Your task to perform on an android device: open app "Airtel Thanks" Image 0: 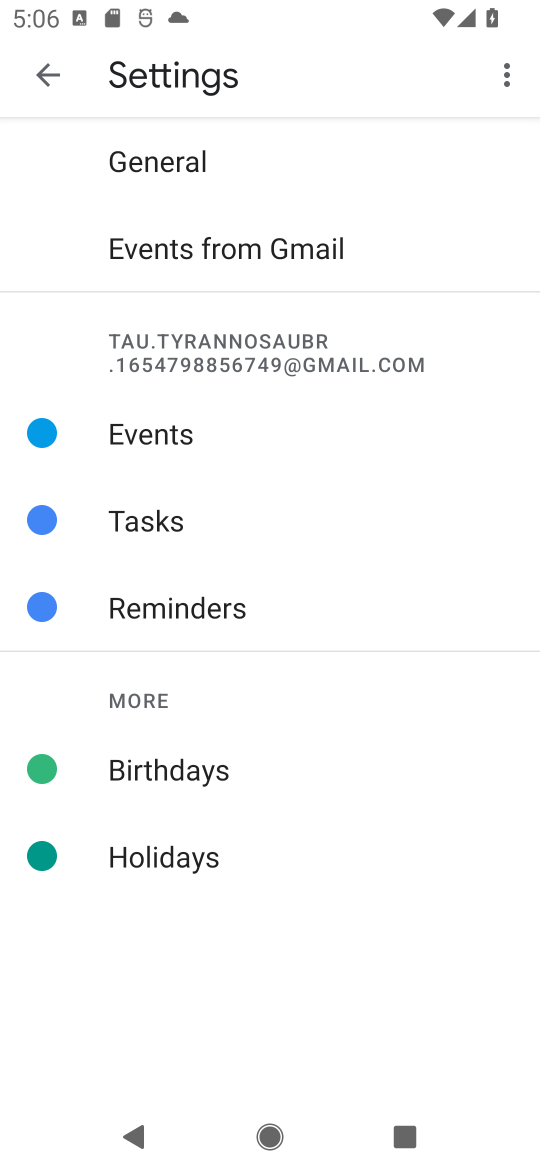
Step 0: press home button
Your task to perform on an android device: open app "Airtel Thanks" Image 1: 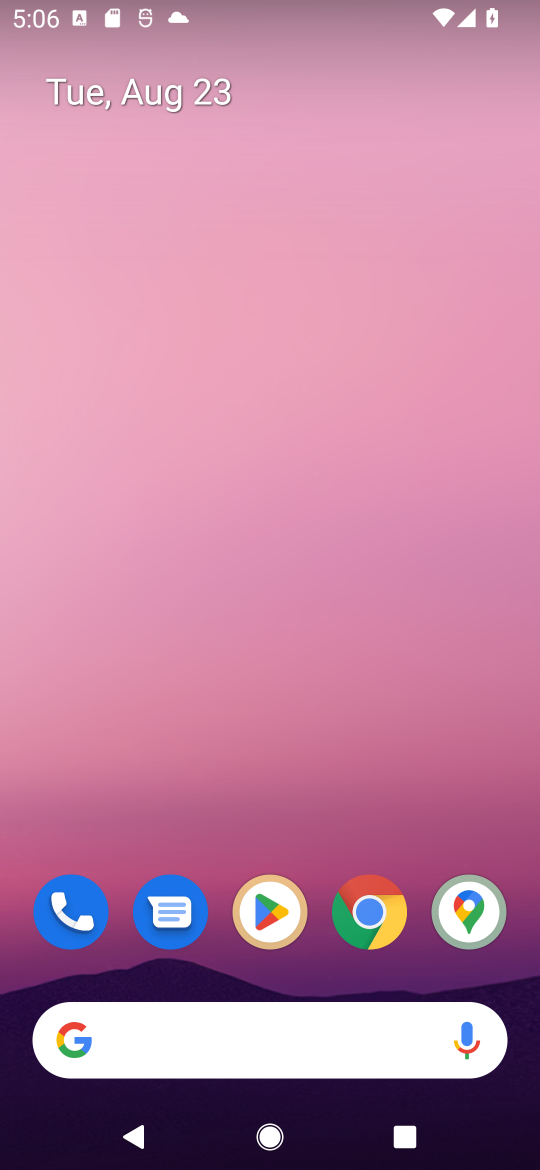
Step 1: drag from (202, 1018) to (173, 146)
Your task to perform on an android device: open app "Airtel Thanks" Image 2: 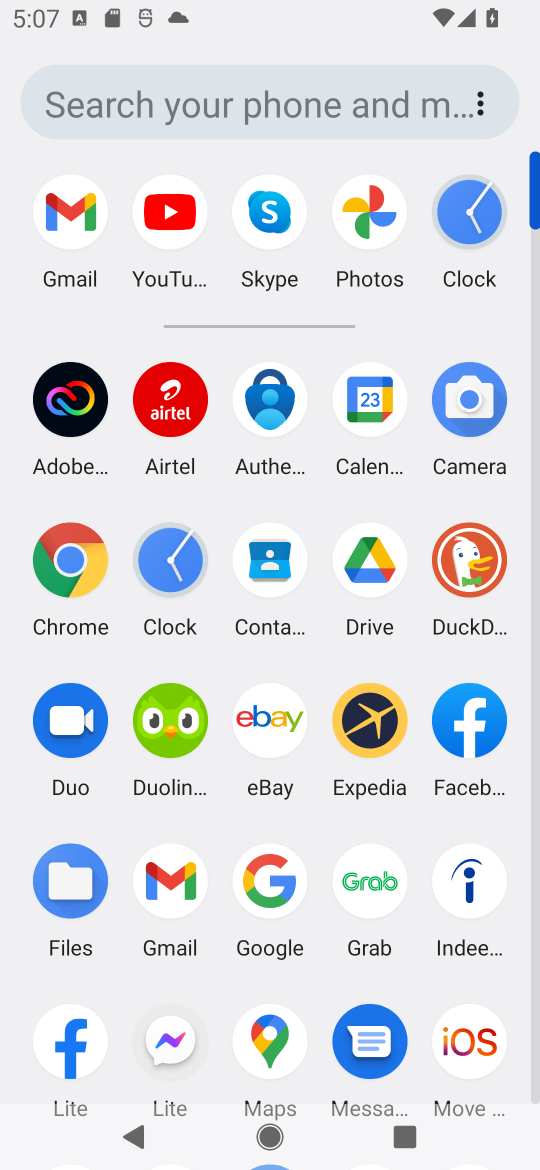
Step 2: drag from (266, 986) to (174, 386)
Your task to perform on an android device: open app "Airtel Thanks" Image 3: 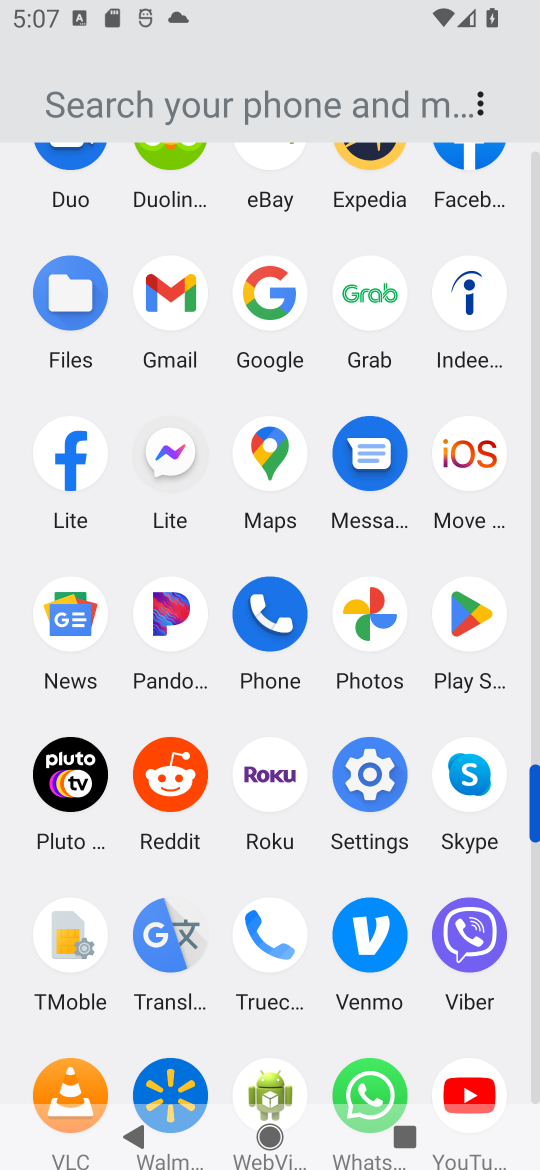
Step 3: click (475, 617)
Your task to perform on an android device: open app "Airtel Thanks" Image 4: 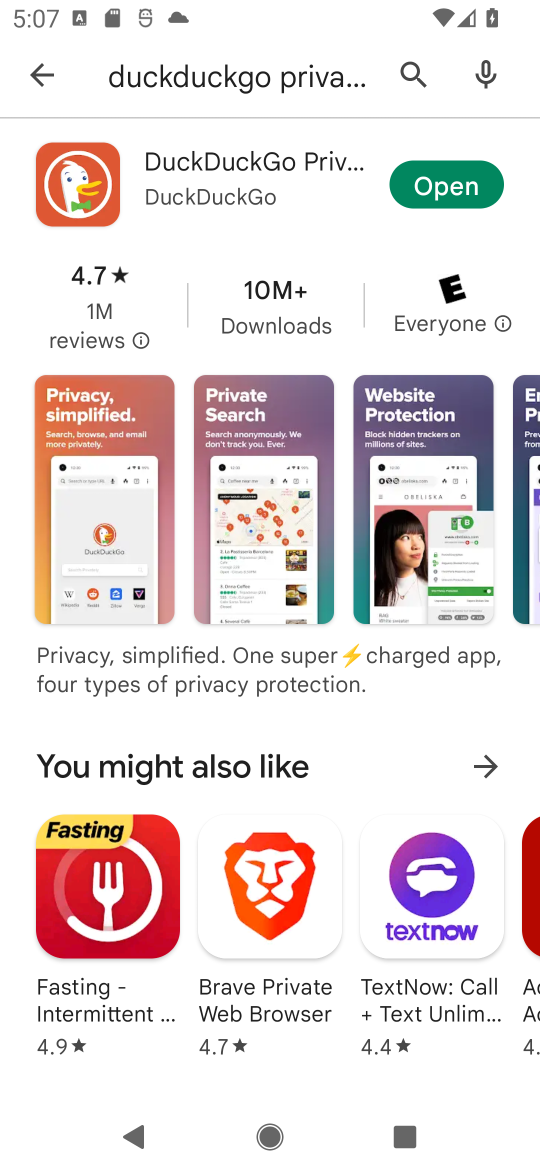
Step 4: press back button
Your task to perform on an android device: open app "Airtel Thanks" Image 5: 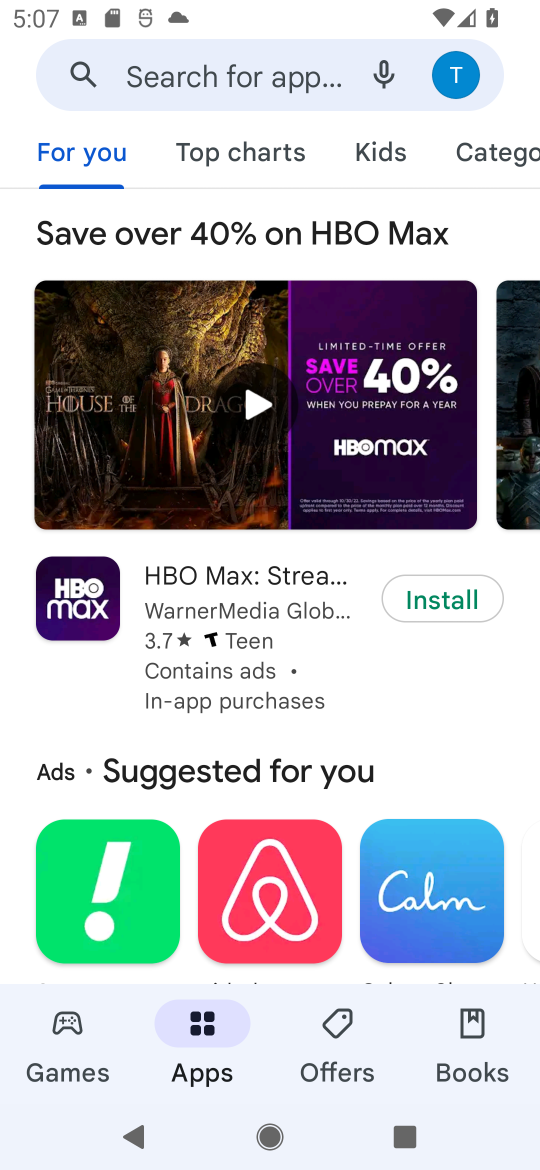
Step 5: click (259, 85)
Your task to perform on an android device: open app "Airtel Thanks" Image 6: 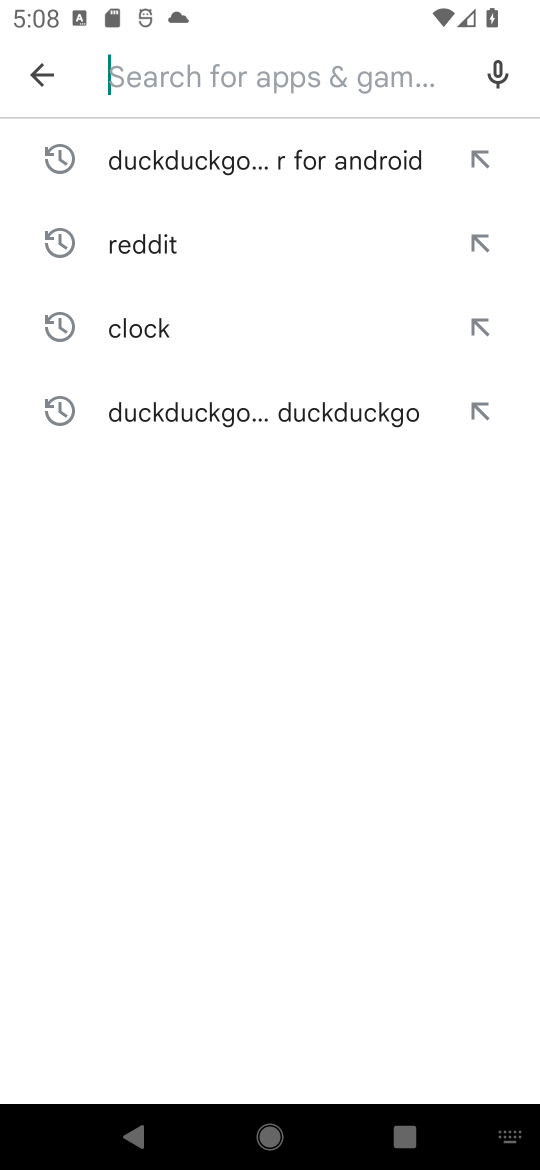
Step 6: type "Airtel Thanks"
Your task to perform on an android device: open app "Airtel Thanks" Image 7: 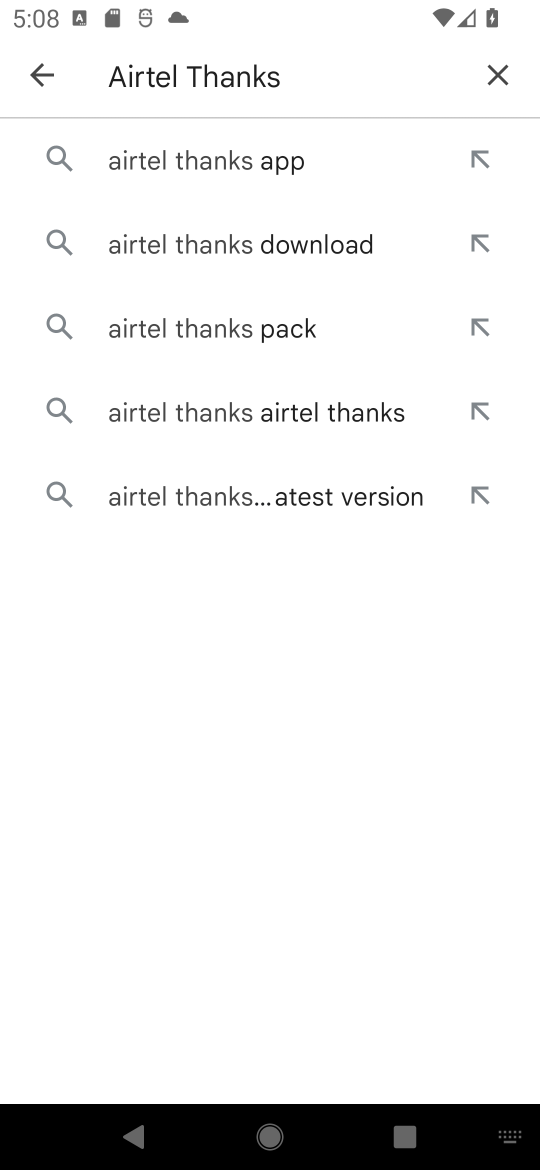
Step 7: click (218, 172)
Your task to perform on an android device: open app "Airtel Thanks" Image 8: 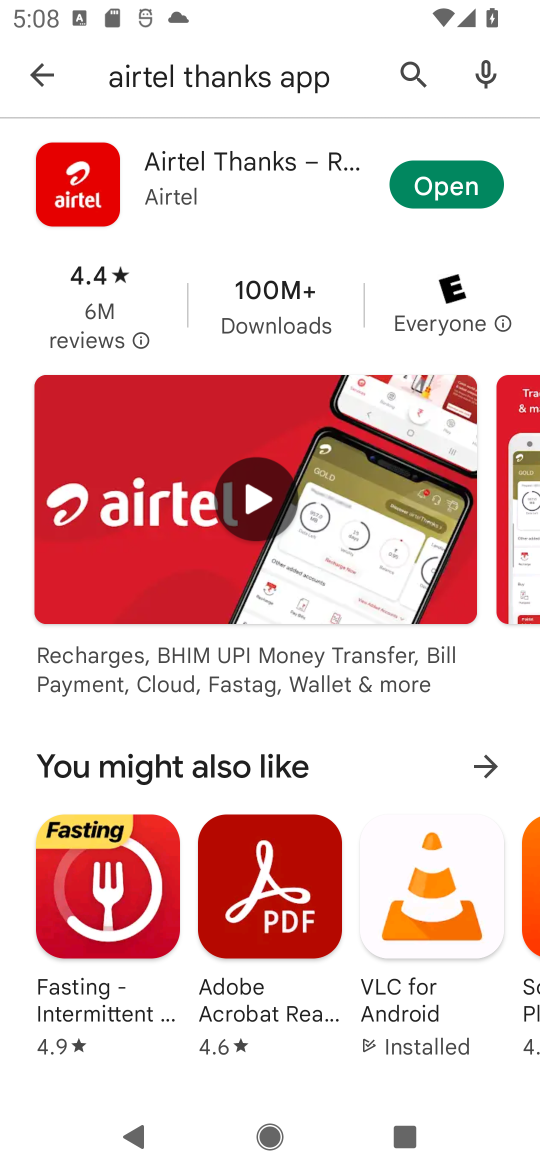
Step 8: click (456, 188)
Your task to perform on an android device: open app "Airtel Thanks" Image 9: 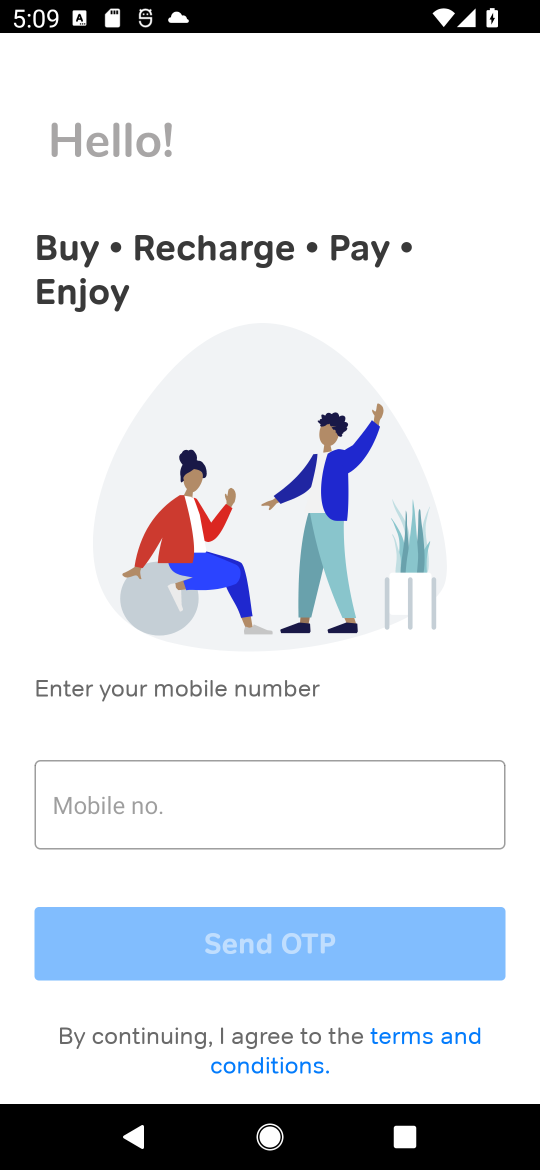
Step 9: task complete